Your task to perform on an android device: Open the calendar and show me this week's events Image 0: 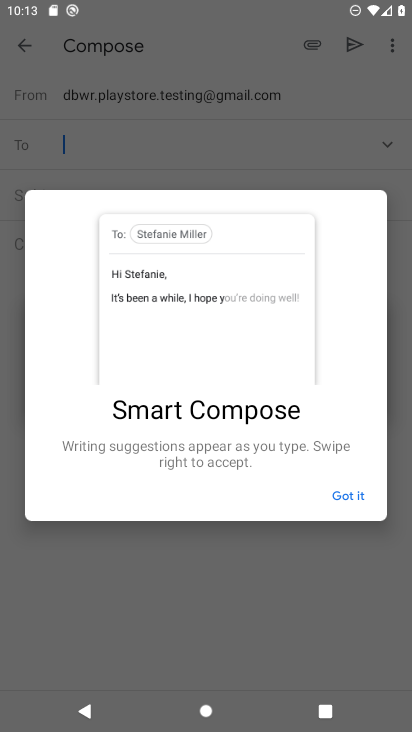
Step 0: press home button
Your task to perform on an android device: Open the calendar and show me this week's events Image 1: 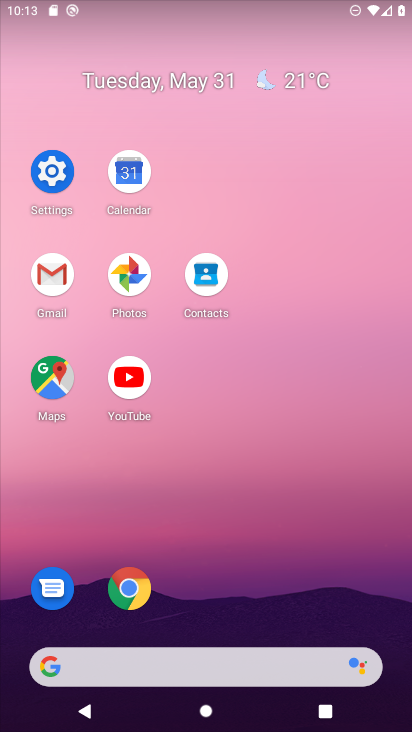
Step 1: click (129, 180)
Your task to perform on an android device: Open the calendar and show me this week's events Image 2: 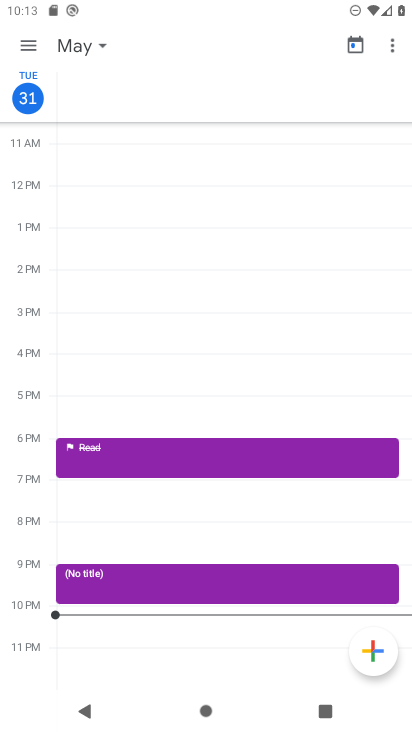
Step 2: click (27, 44)
Your task to perform on an android device: Open the calendar and show me this week's events Image 3: 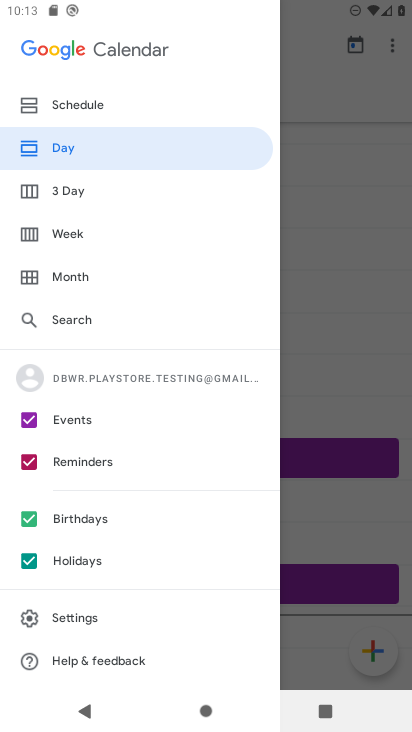
Step 3: click (75, 245)
Your task to perform on an android device: Open the calendar and show me this week's events Image 4: 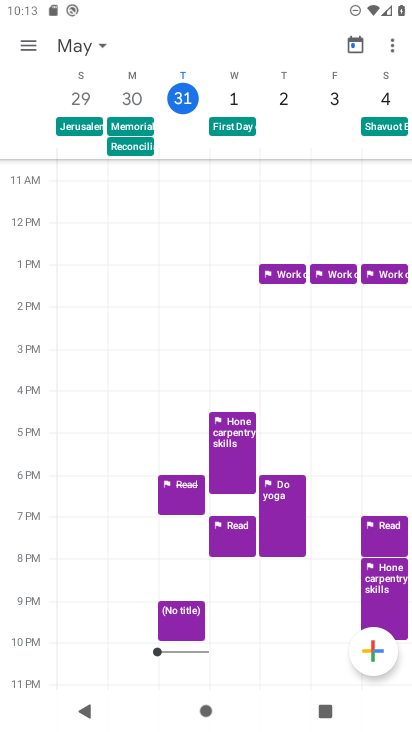
Step 4: task complete